Your task to perform on an android device: turn on priority inbox in the gmail app Image 0: 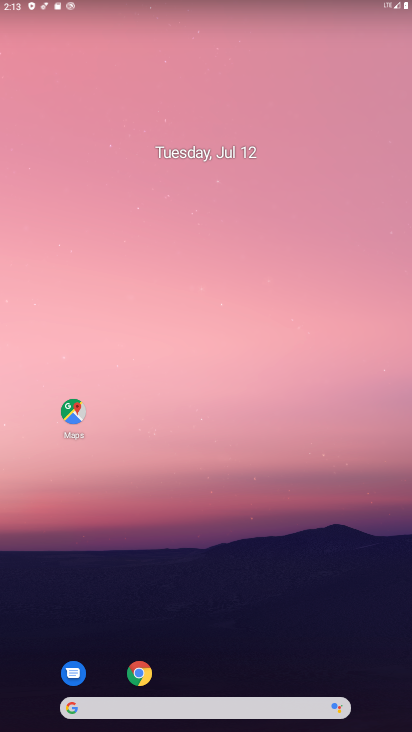
Step 0: drag from (214, 673) to (68, 112)
Your task to perform on an android device: turn on priority inbox in the gmail app Image 1: 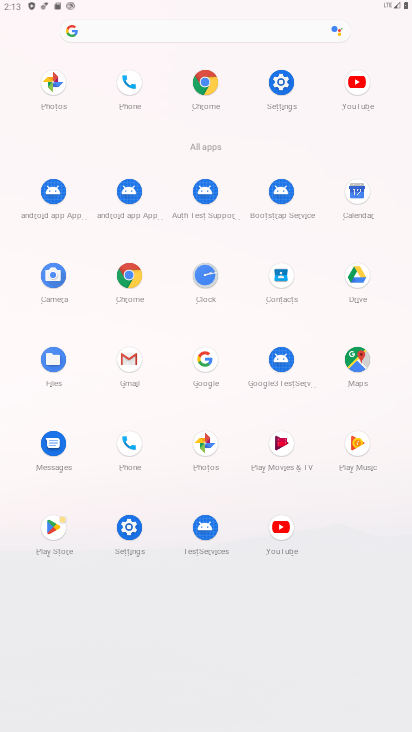
Step 1: click (129, 365)
Your task to perform on an android device: turn on priority inbox in the gmail app Image 2: 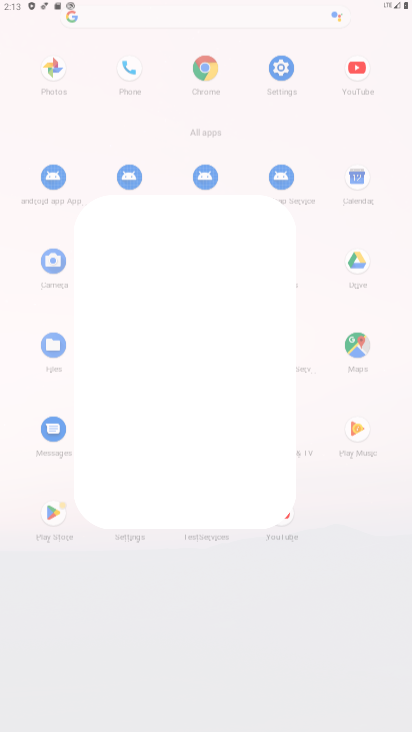
Step 2: click (128, 353)
Your task to perform on an android device: turn on priority inbox in the gmail app Image 3: 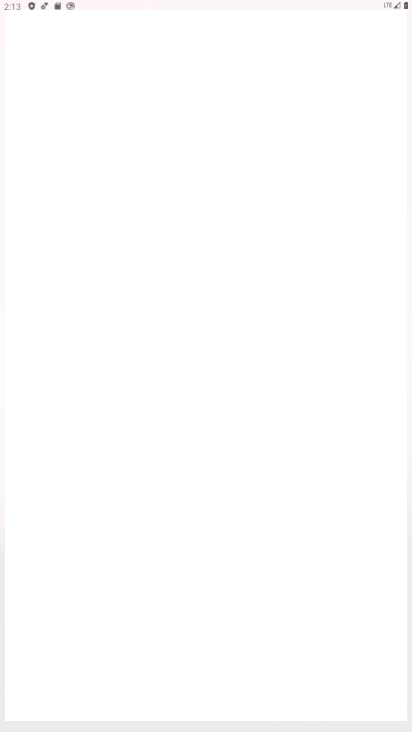
Step 3: click (128, 353)
Your task to perform on an android device: turn on priority inbox in the gmail app Image 4: 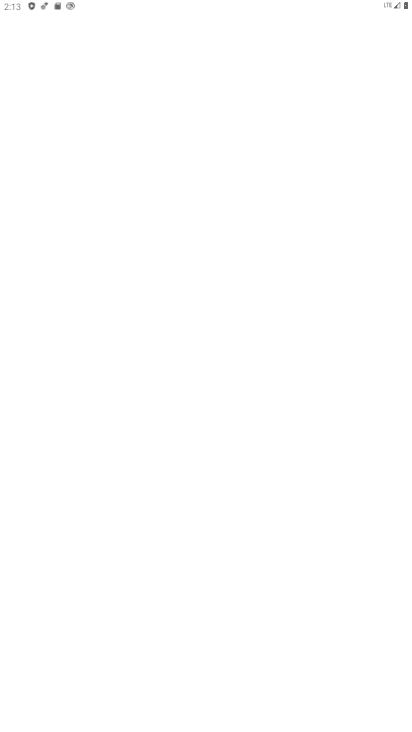
Step 4: click (130, 353)
Your task to perform on an android device: turn on priority inbox in the gmail app Image 5: 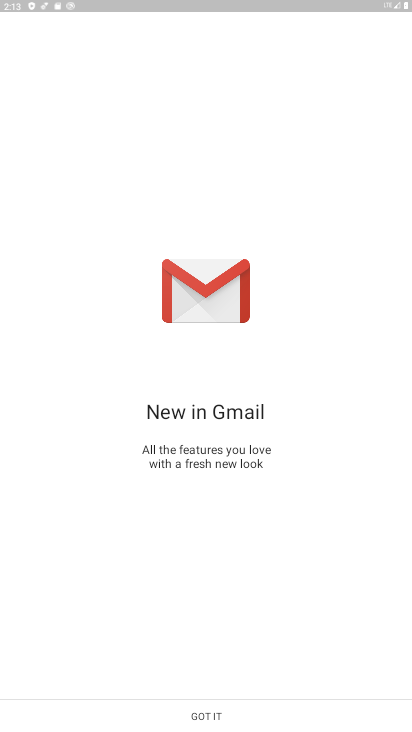
Step 5: click (211, 711)
Your task to perform on an android device: turn on priority inbox in the gmail app Image 6: 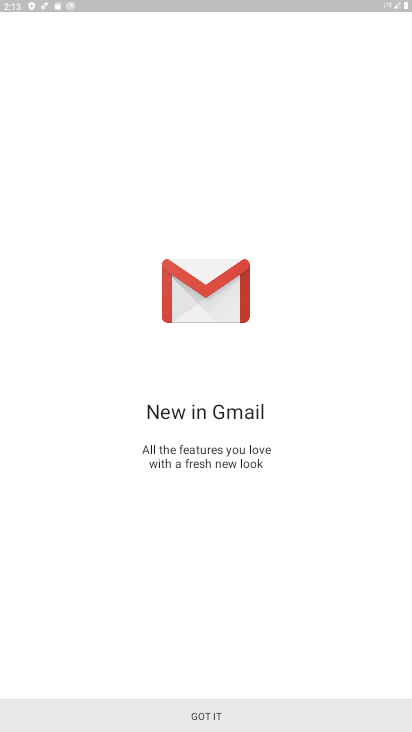
Step 6: click (211, 711)
Your task to perform on an android device: turn on priority inbox in the gmail app Image 7: 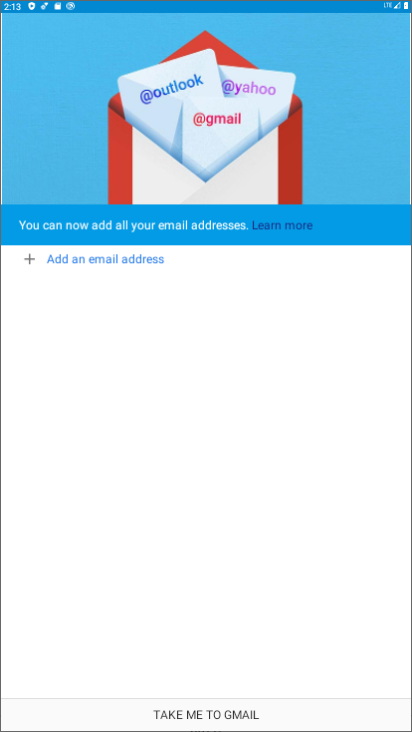
Step 7: click (210, 712)
Your task to perform on an android device: turn on priority inbox in the gmail app Image 8: 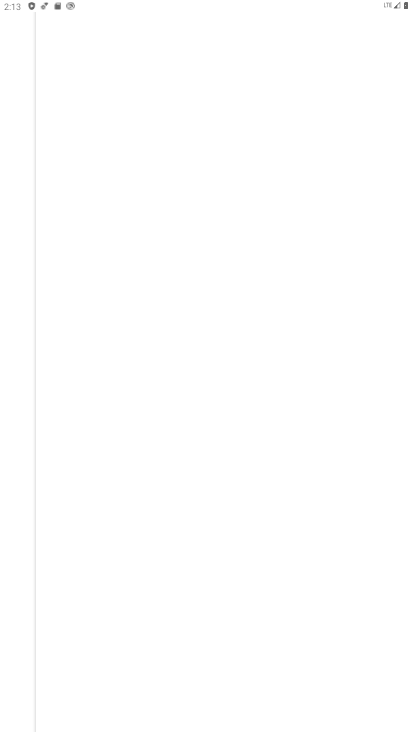
Step 8: click (234, 706)
Your task to perform on an android device: turn on priority inbox in the gmail app Image 9: 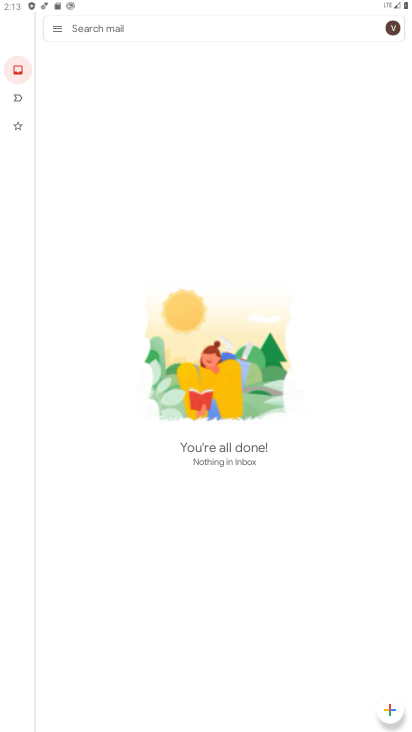
Step 9: click (62, 32)
Your task to perform on an android device: turn on priority inbox in the gmail app Image 10: 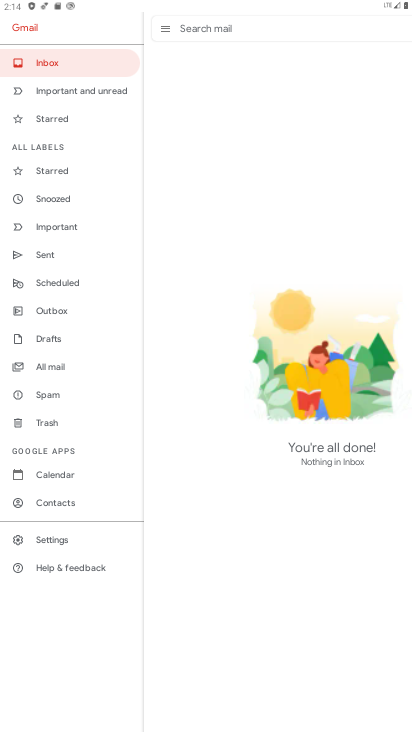
Step 10: click (48, 538)
Your task to perform on an android device: turn on priority inbox in the gmail app Image 11: 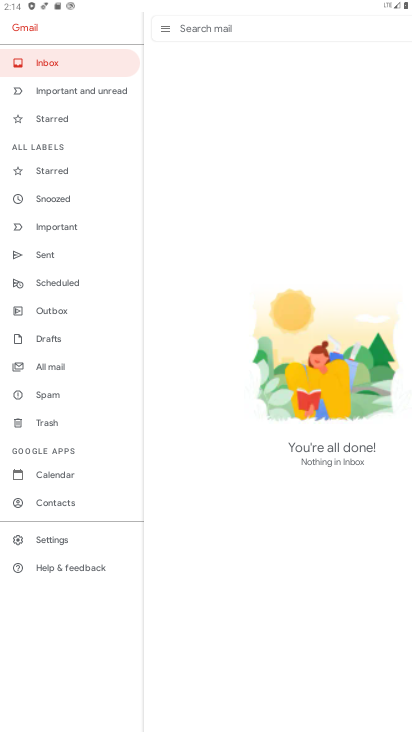
Step 11: click (48, 538)
Your task to perform on an android device: turn on priority inbox in the gmail app Image 12: 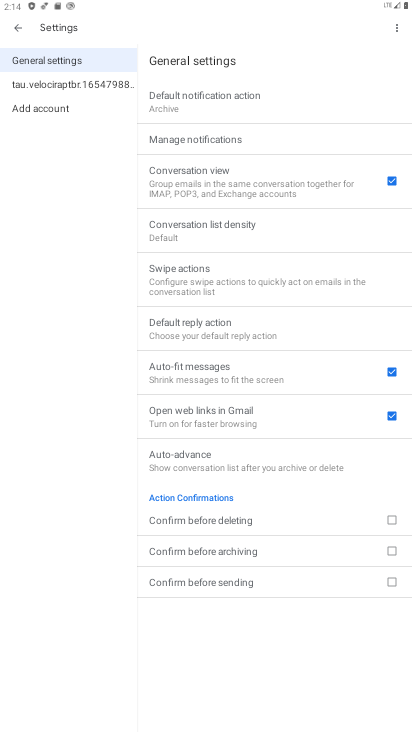
Step 12: click (52, 84)
Your task to perform on an android device: turn on priority inbox in the gmail app Image 13: 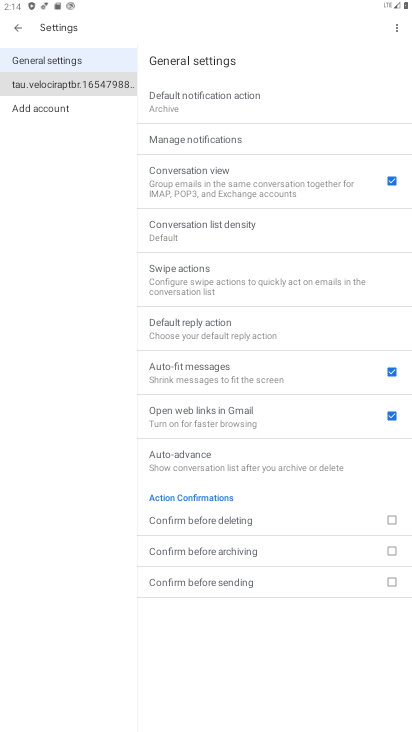
Step 13: click (54, 85)
Your task to perform on an android device: turn on priority inbox in the gmail app Image 14: 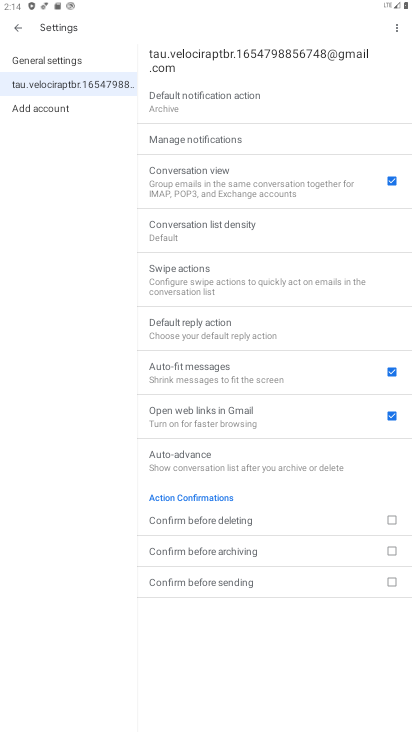
Step 14: click (55, 86)
Your task to perform on an android device: turn on priority inbox in the gmail app Image 15: 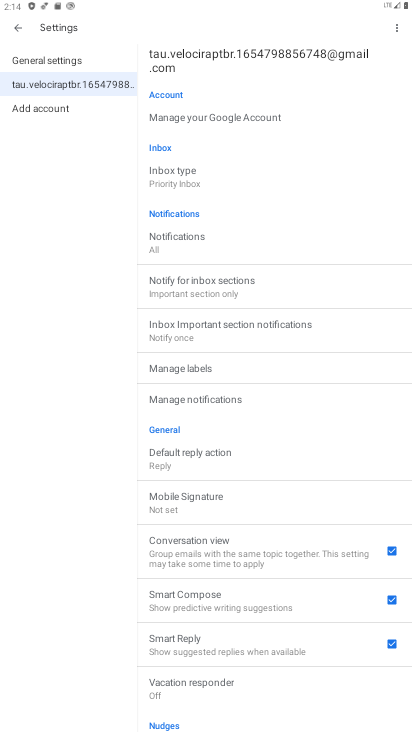
Step 15: task complete